Your task to perform on an android device: Go to calendar. Show me events next week Image 0: 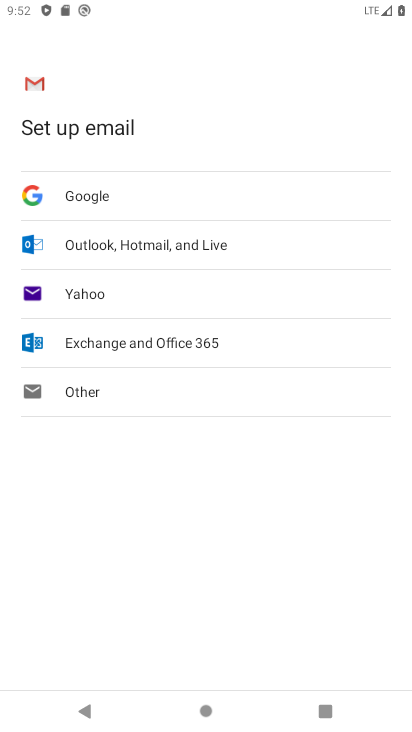
Step 0: press home button
Your task to perform on an android device: Go to calendar. Show me events next week Image 1: 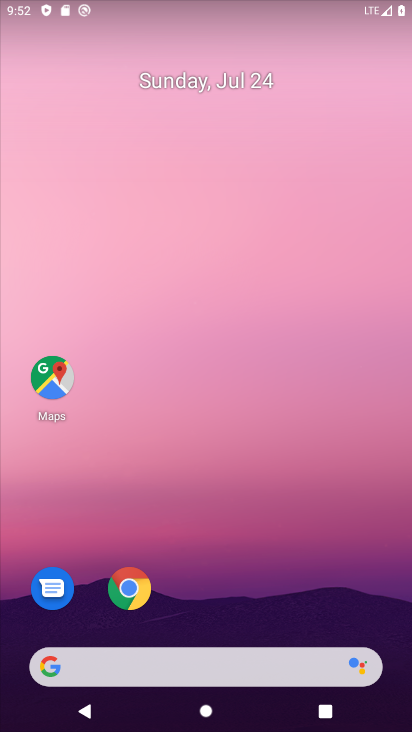
Step 1: drag from (245, 700) to (335, 29)
Your task to perform on an android device: Go to calendar. Show me events next week Image 2: 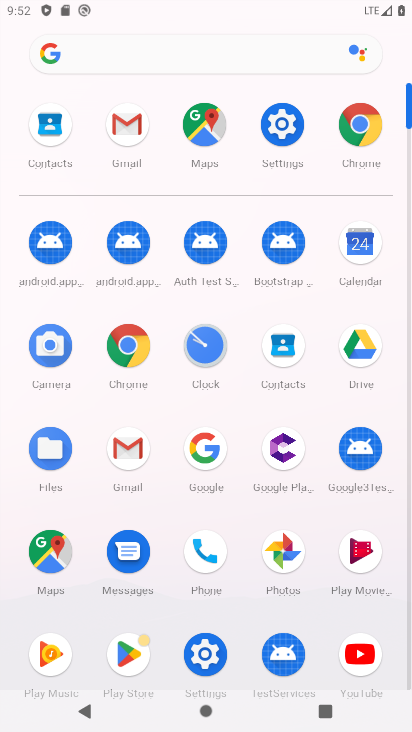
Step 2: click (364, 244)
Your task to perform on an android device: Go to calendar. Show me events next week Image 3: 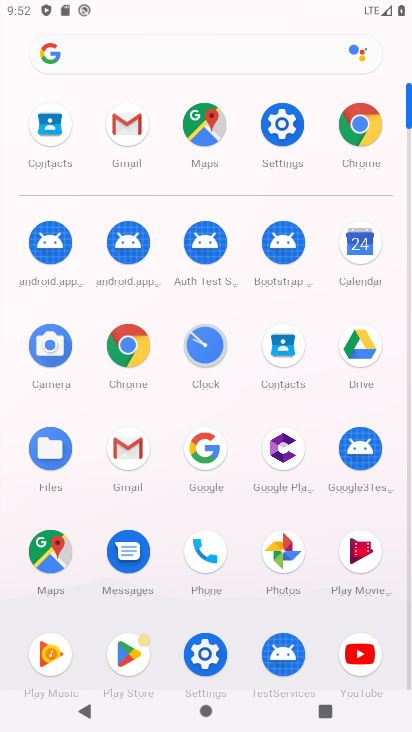
Step 3: click (364, 244)
Your task to perform on an android device: Go to calendar. Show me events next week Image 4: 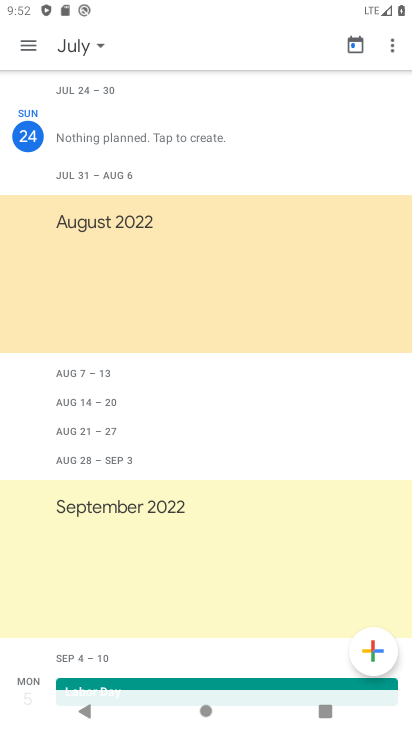
Step 4: click (79, 41)
Your task to perform on an android device: Go to calendar. Show me events next week Image 5: 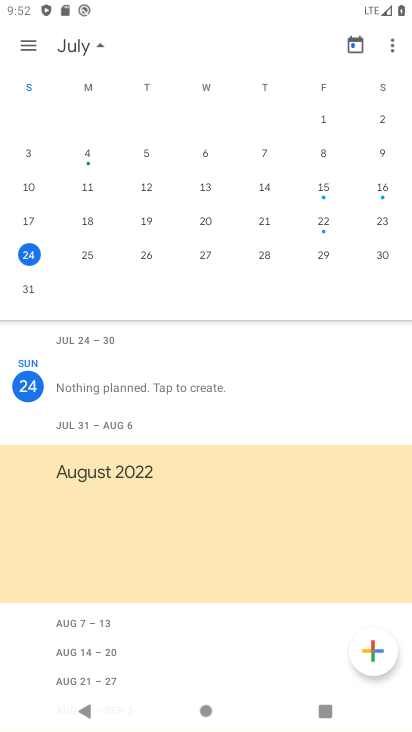
Step 5: task complete